Your task to perform on an android device: Go to privacy settings Image 0: 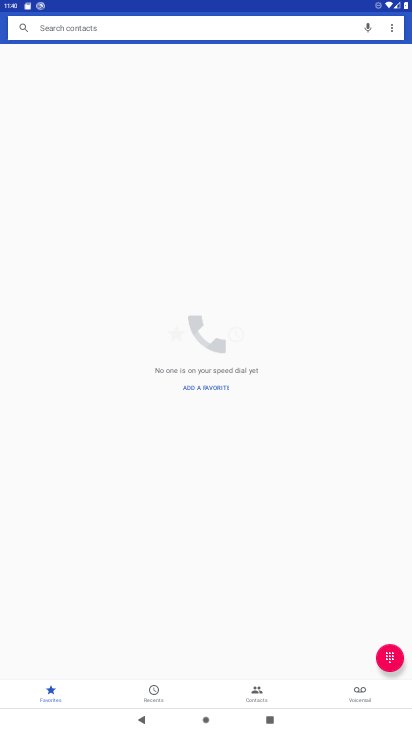
Step 0: press home button
Your task to perform on an android device: Go to privacy settings Image 1: 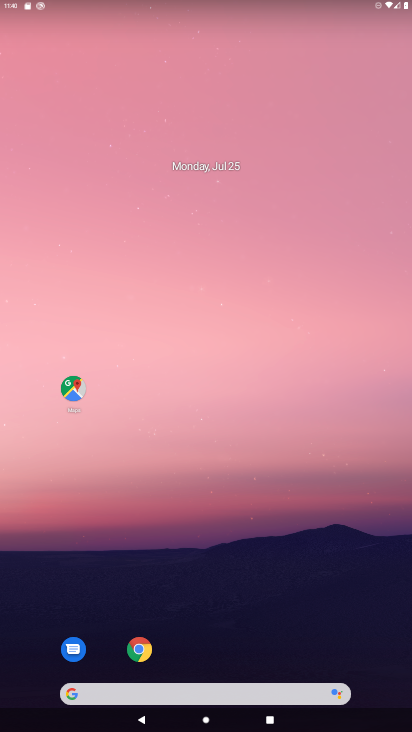
Step 1: drag from (374, 647) to (325, 195)
Your task to perform on an android device: Go to privacy settings Image 2: 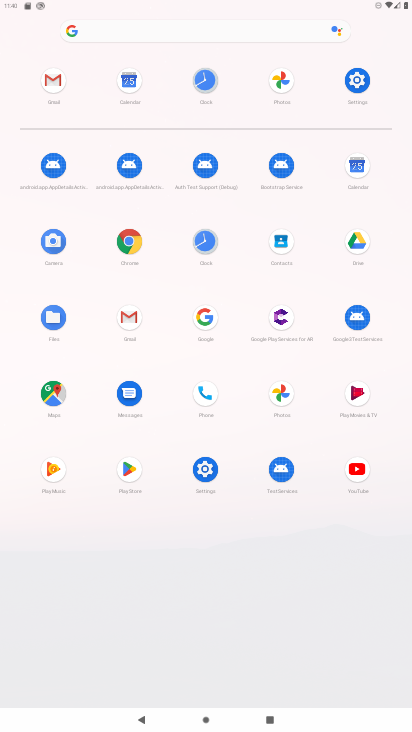
Step 2: click (205, 468)
Your task to perform on an android device: Go to privacy settings Image 3: 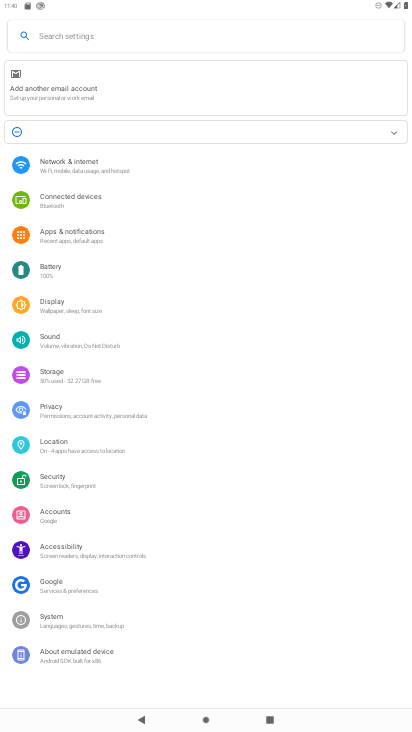
Step 3: click (41, 415)
Your task to perform on an android device: Go to privacy settings Image 4: 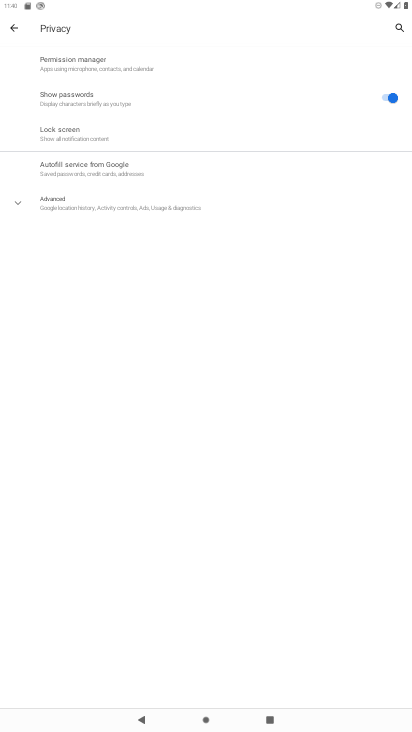
Step 4: click (22, 203)
Your task to perform on an android device: Go to privacy settings Image 5: 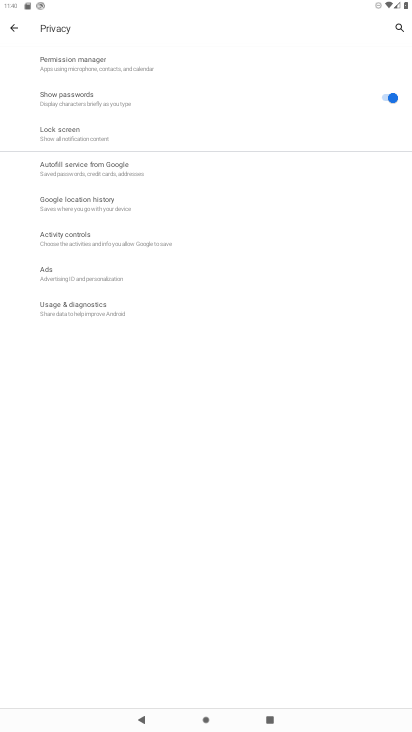
Step 5: task complete